Your task to perform on an android device: set an alarm Image 0: 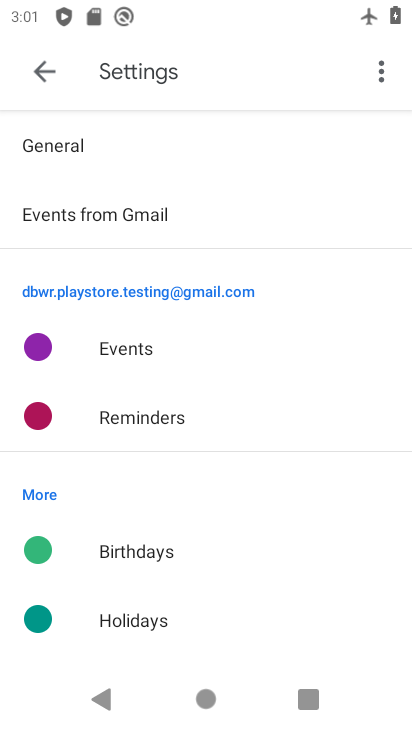
Step 0: press home button
Your task to perform on an android device: set an alarm Image 1: 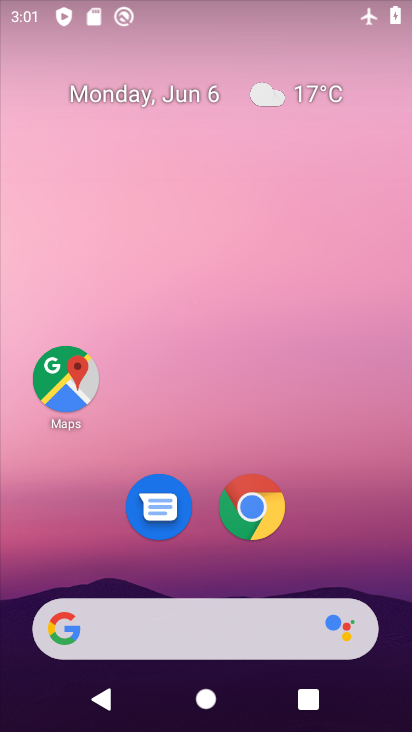
Step 1: drag from (326, 570) to (328, 111)
Your task to perform on an android device: set an alarm Image 2: 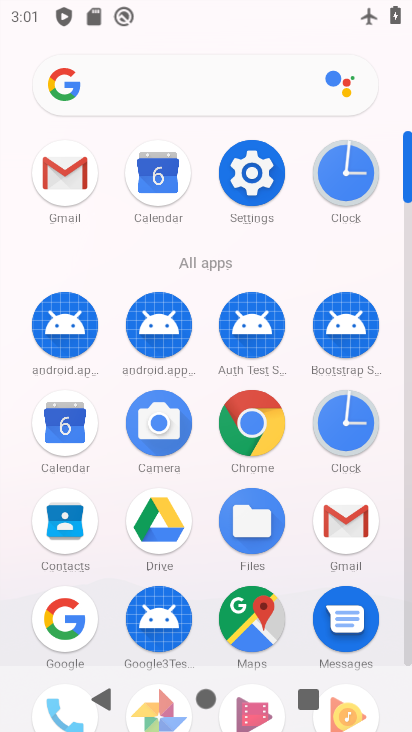
Step 2: click (353, 164)
Your task to perform on an android device: set an alarm Image 3: 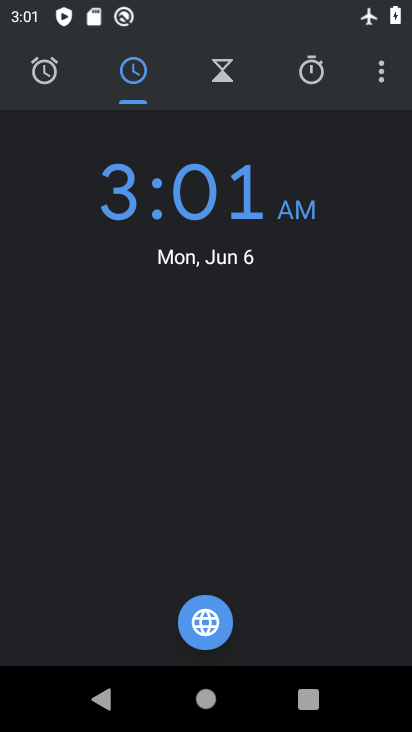
Step 3: click (53, 73)
Your task to perform on an android device: set an alarm Image 4: 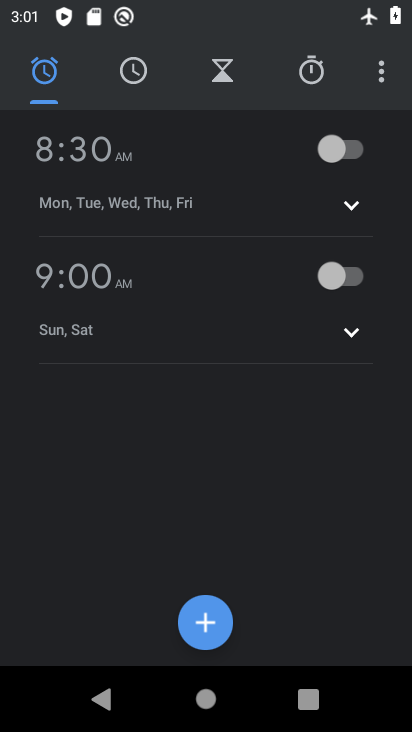
Step 4: click (352, 272)
Your task to perform on an android device: set an alarm Image 5: 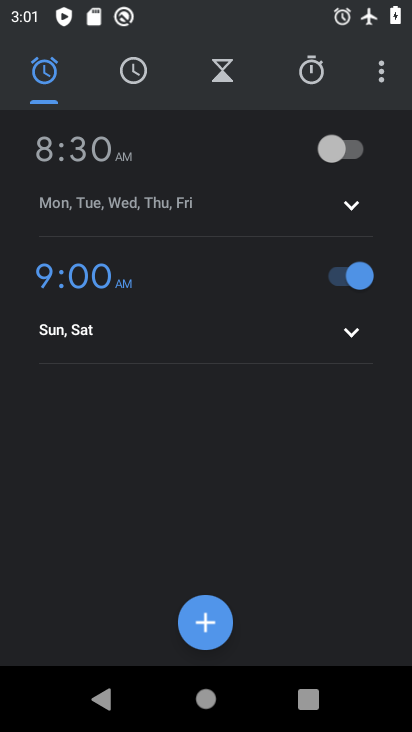
Step 5: task complete